Your task to perform on an android device: Go to settings Image 0: 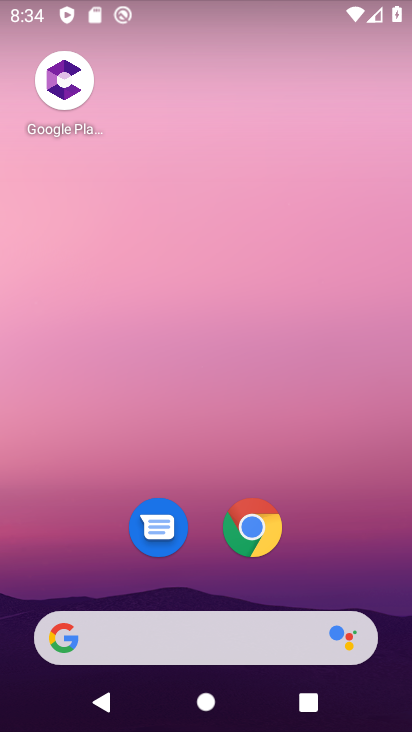
Step 0: drag from (212, 582) to (234, 148)
Your task to perform on an android device: Go to settings Image 1: 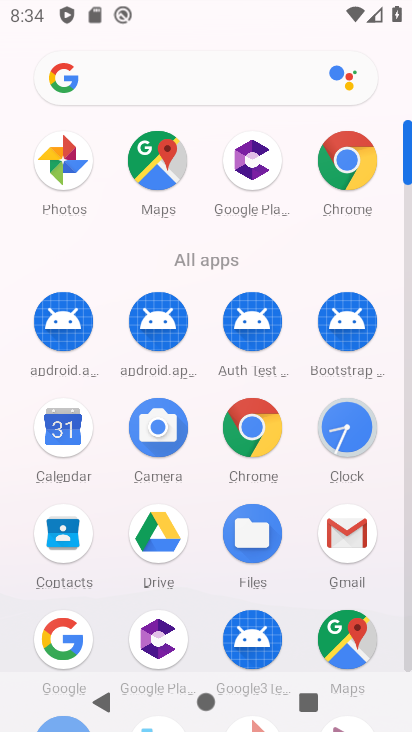
Step 1: drag from (241, 590) to (252, 320)
Your task to perform on an android device: Go to settings Image 2: 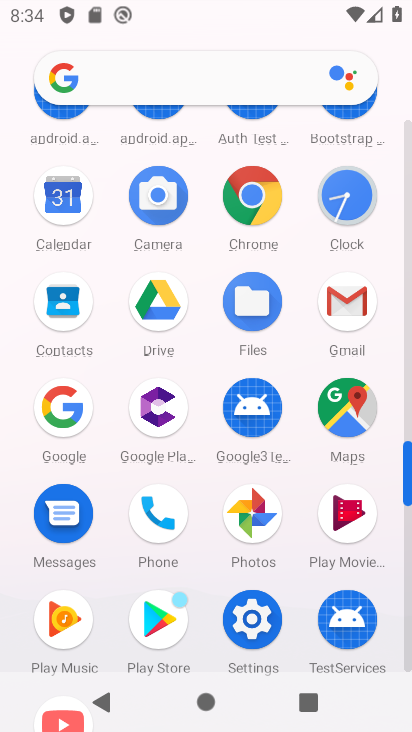
Step 2: click (238, 615)
Your task to perform on an android device: Go to settings Image 3: 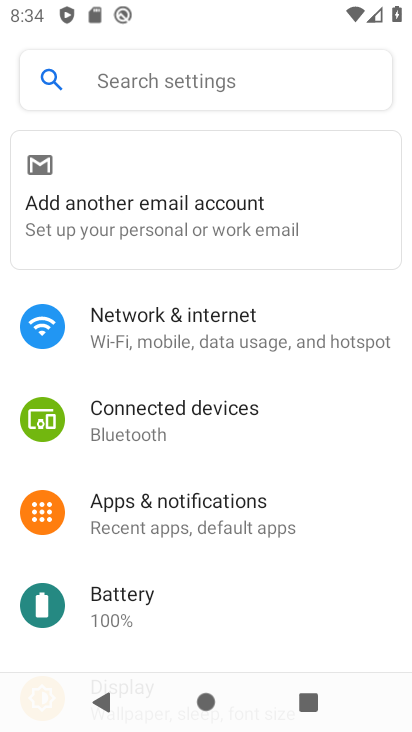
Step 3: task complete